Your task to perform on an android device: toggle sleep mode Image 0: 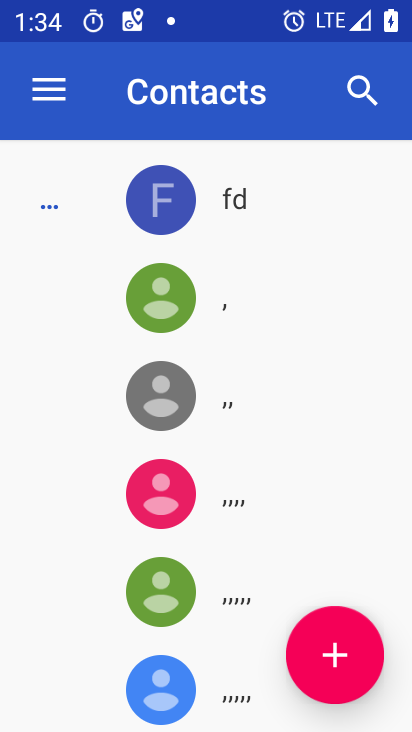
Step 0: press home button
Your task to perform on an android device: toggle sleep mode Image 1: 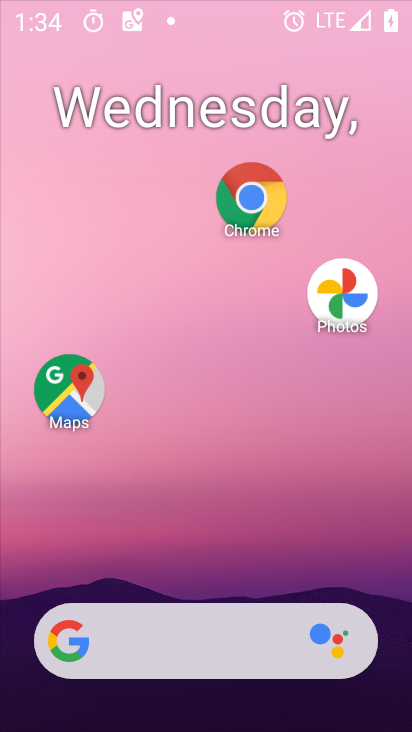
Step 1: drag from (228, 660) to (246, 69)
Your task to perform on an android device: toggle sleep mode Image 2: 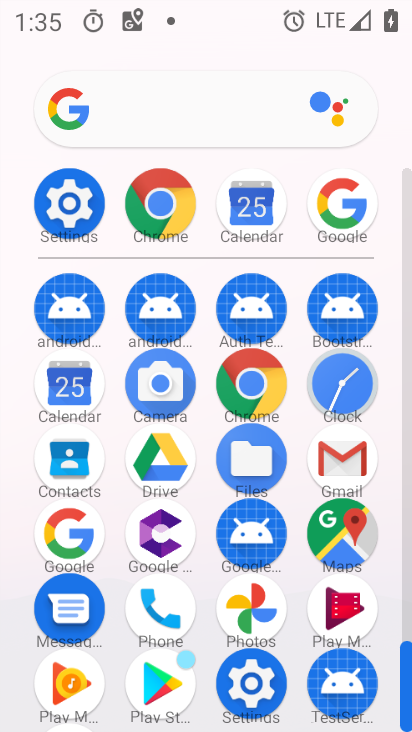
Step 2: click (80, 210)
Your task to perform on an android device: toggle sleep mode Image 3: 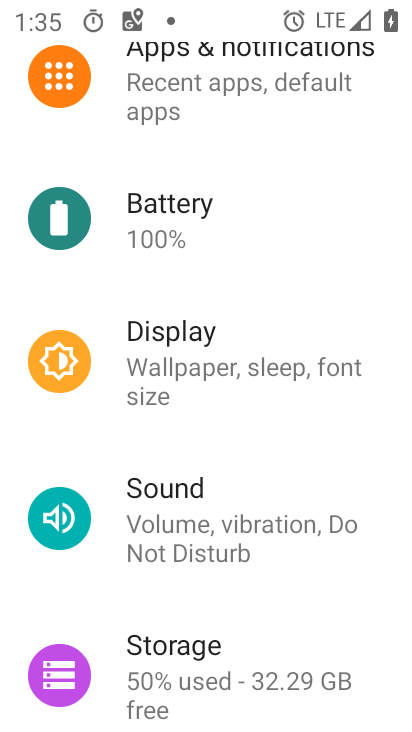
Step 3: click (205, 354)
Your task to perform on an android device: toggle sleep mode Image 4: 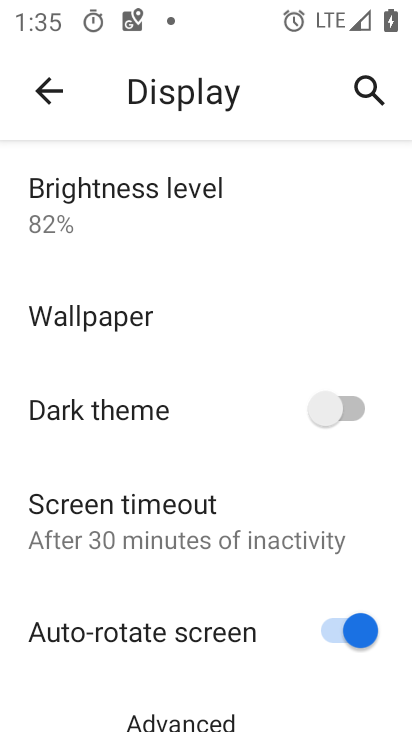
Step 4: drag from (180, 604) to (209, 168)
Your task to perform on an android device: toggle sleep mode Image 5: 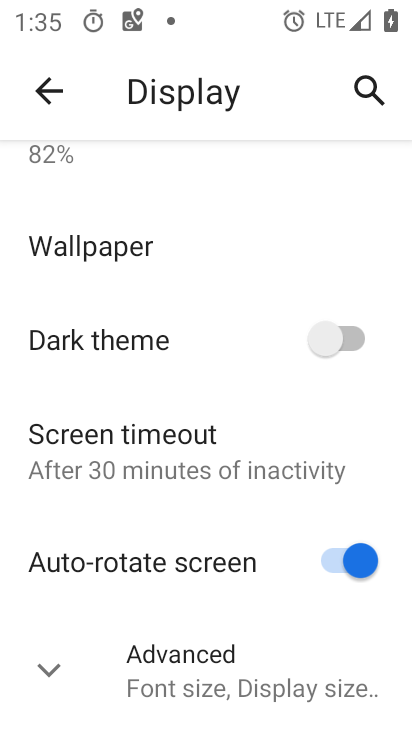
Step 5: click (226, 682)
Your task to perform on an android device: toggle sleep mode Image 6: 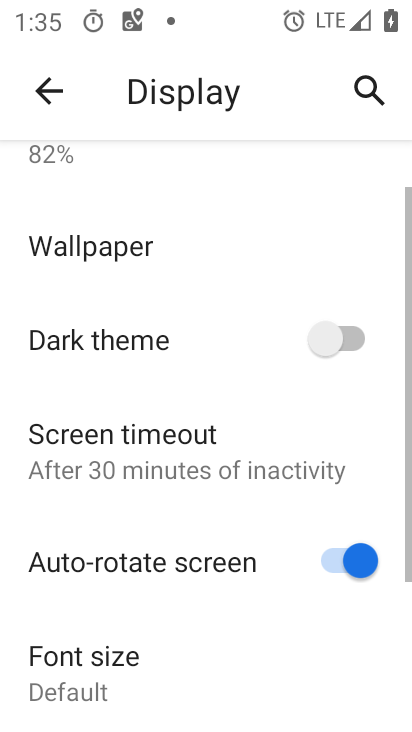
Step 6: task complete